Your task to perform on an android device: Open calendar and show me the second week of next month Image 0: 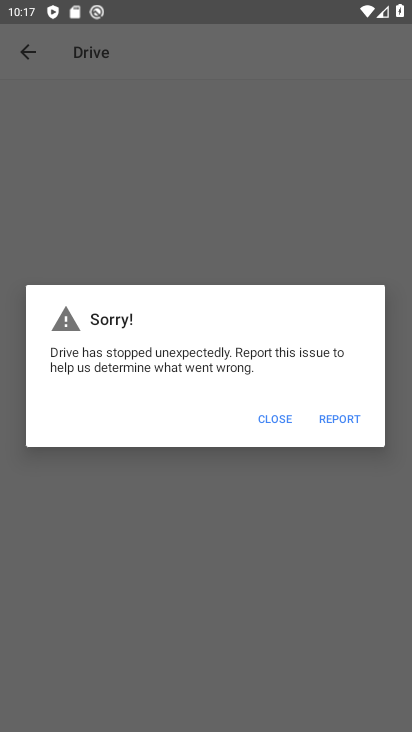
Step 0: press home button
Your task to perform on an android device: Open calendar and show me the second week of next month Image 1: 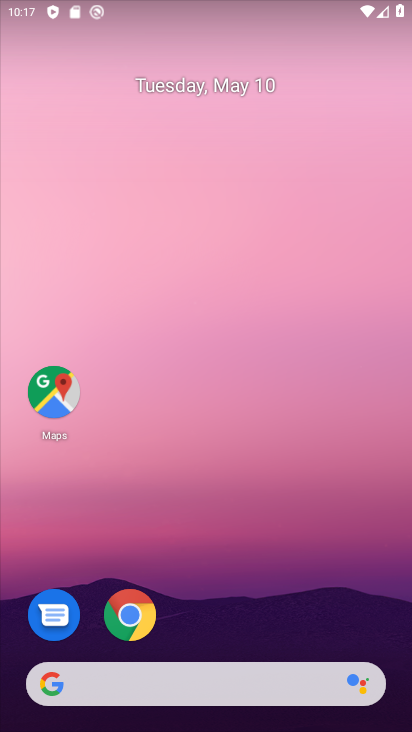
Step 1: drag from (213, 613) to (168, 170)
Your task to perform on an android device: Open calendar and show me the second week of next month Image 2: 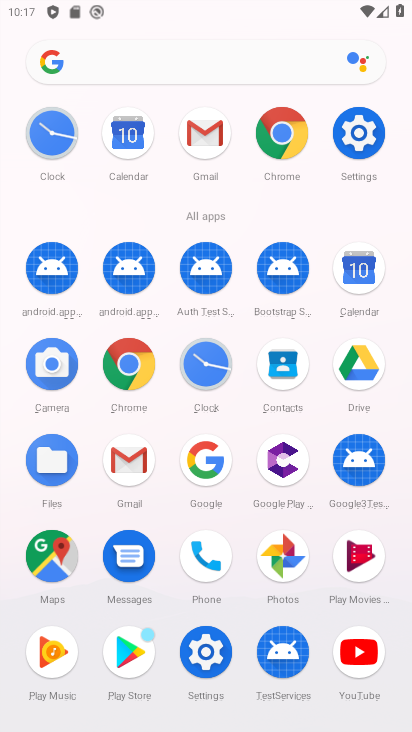
Step 2: click (129, 132)
Your task to perform on an android device: Open calendar and show me the second week of next month Image 3: 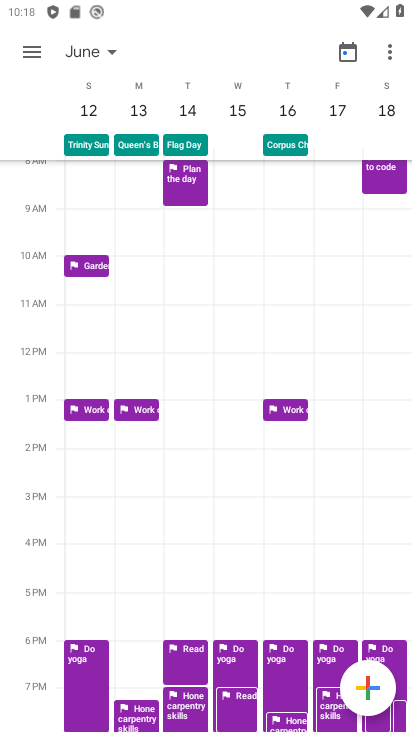
Step 3: click (349, 52)
Your task to perform on an android device: Open calendar and show me the second week of next month Image 4: 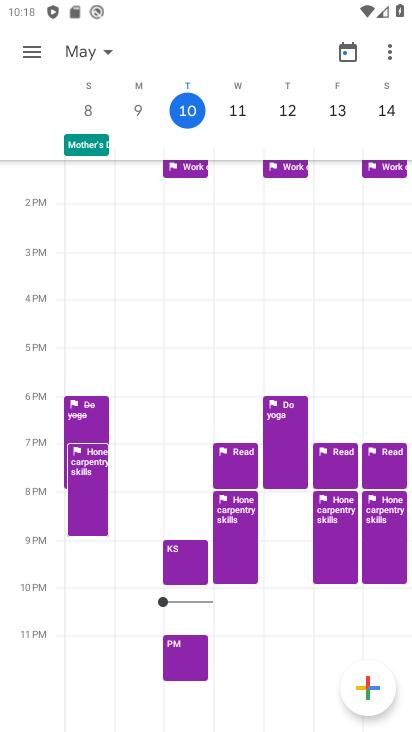
Step 4: click (104, 55)
Your task to perform on an android device: Open calendar and show me the second week of next month Image 5: 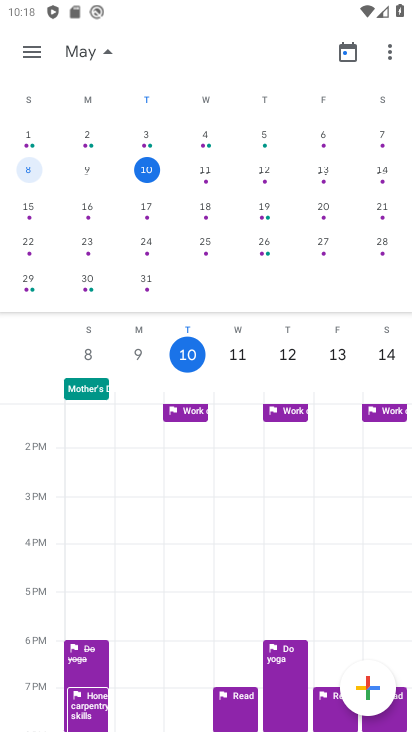
Step 5: drag from (371, 216) to (1, 259)
Your task to perform on an android device: Open calendar and show me the second week of next month Image 6: 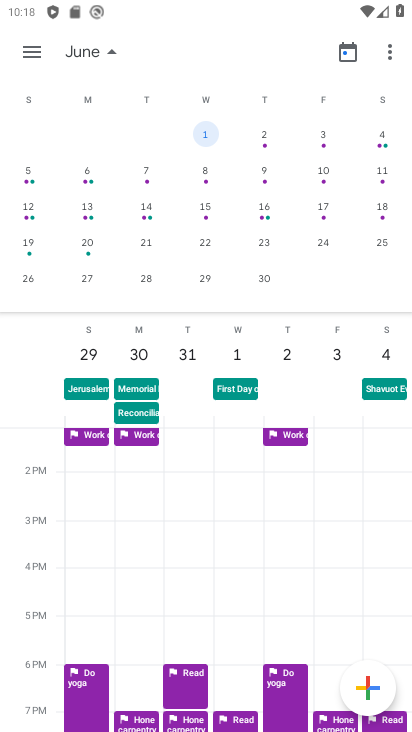
Step 6: click (87, 210)
Your task to perform on an android device: Open calendar and show me the second week of next month Image 7: 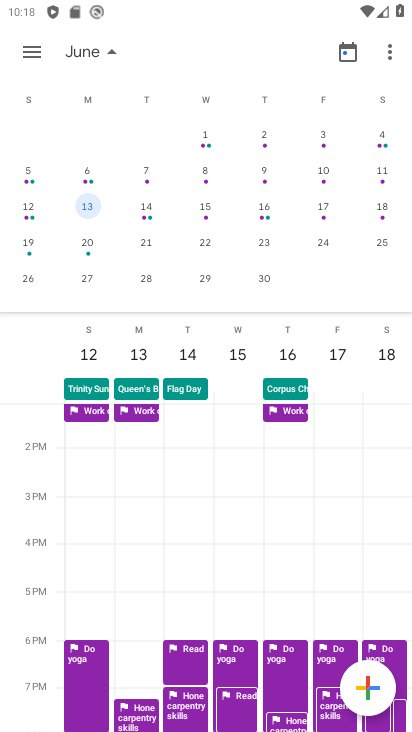
Step 7: click (34, 50)
Your task to perform on an android device: Open calendar and show me the second week of next month Image 8: 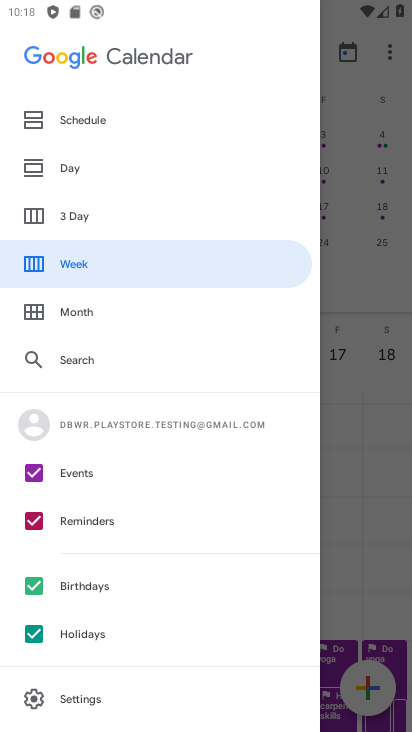
Step 8: click (78, 263)
Your task to perform on an android device: Open calendar and show me the second week of next month Image 9: 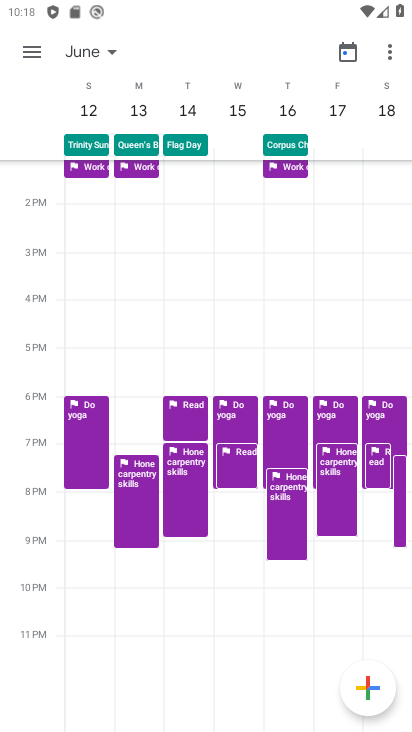
Step 9: task complete